Your task to perform on an android device: install app "TextNow: Call + Text Unlimited" Image 0: 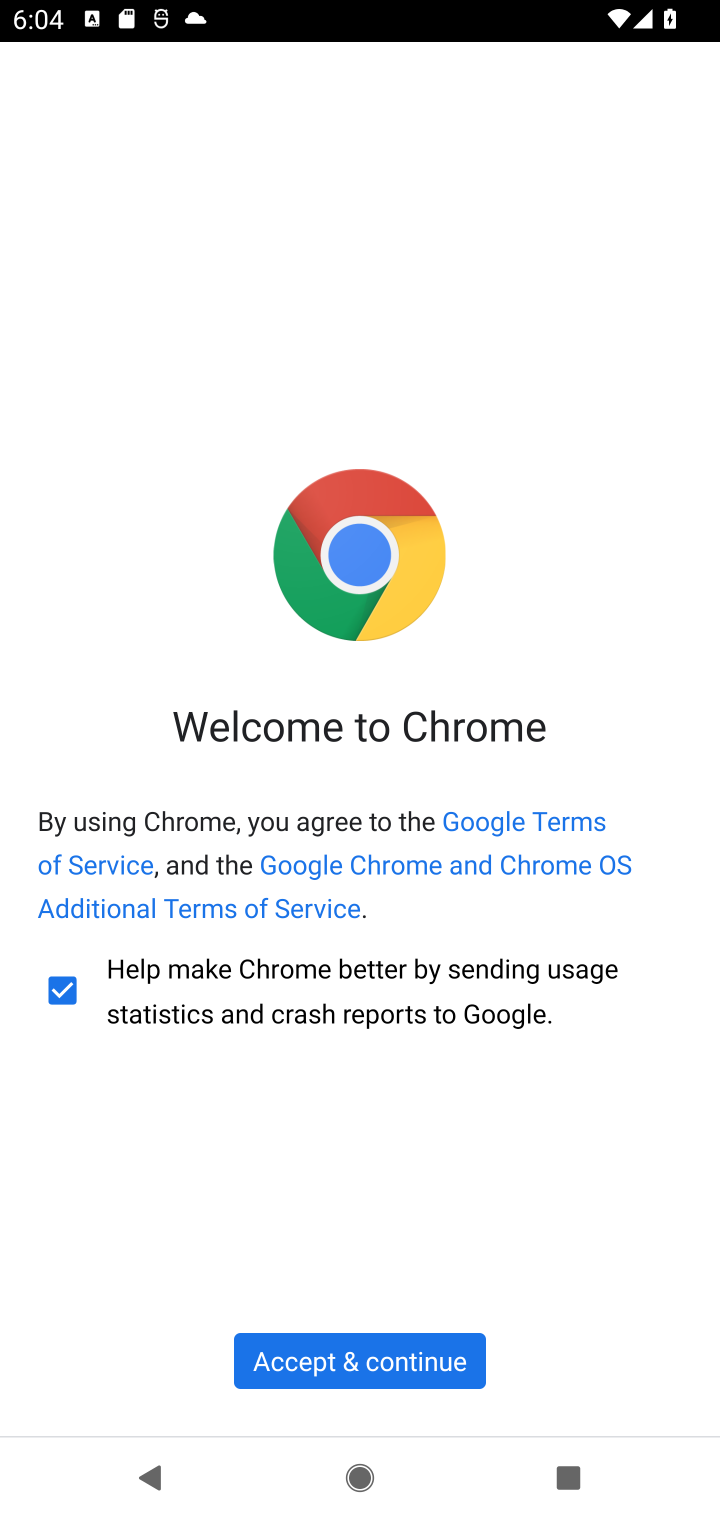
Step 0: press home button
Your task to perform on an android device: install app "TextNow: Call + Text Unlimited" Image 1: 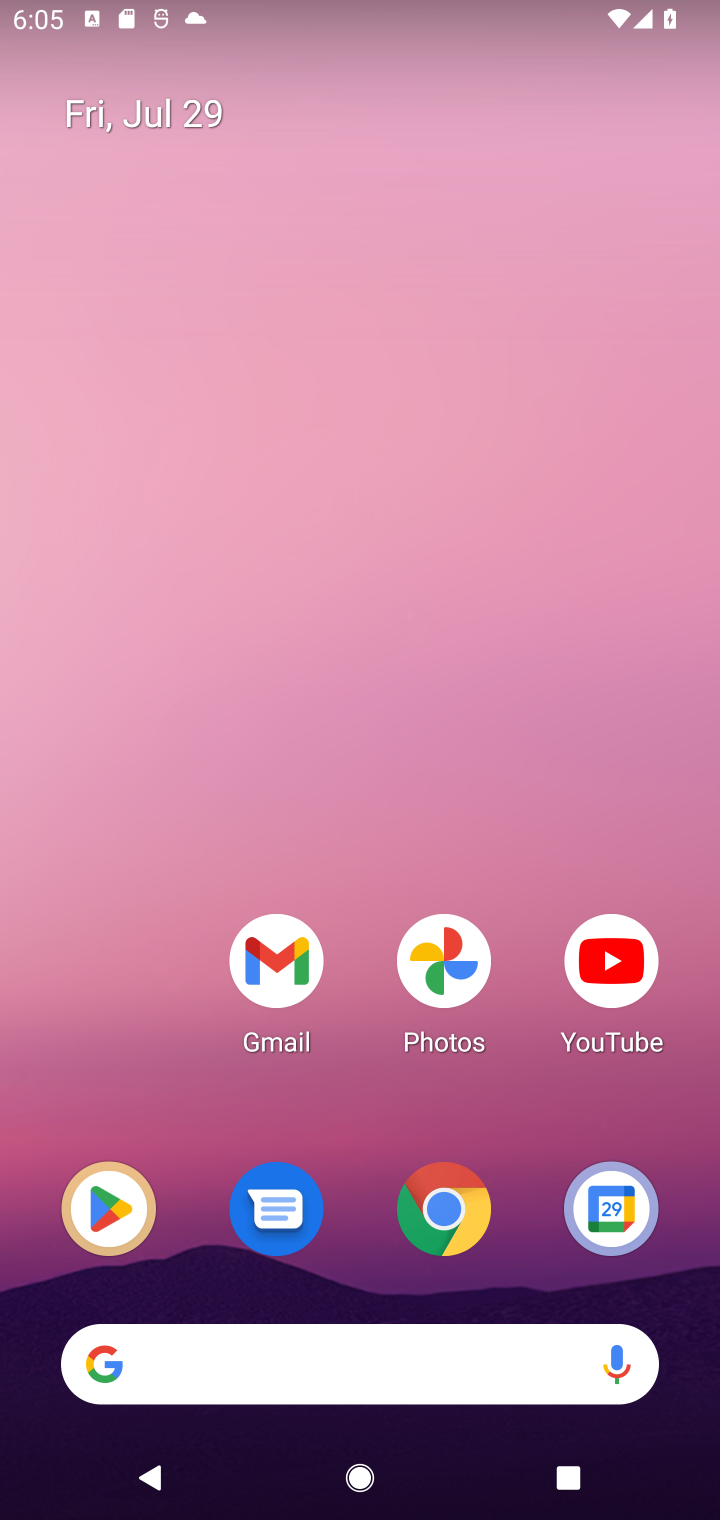
Step 1: click (118, 1225)
Your task to perform on an android device: install app "TextNow: Call + Text Unlimited" Image 2: 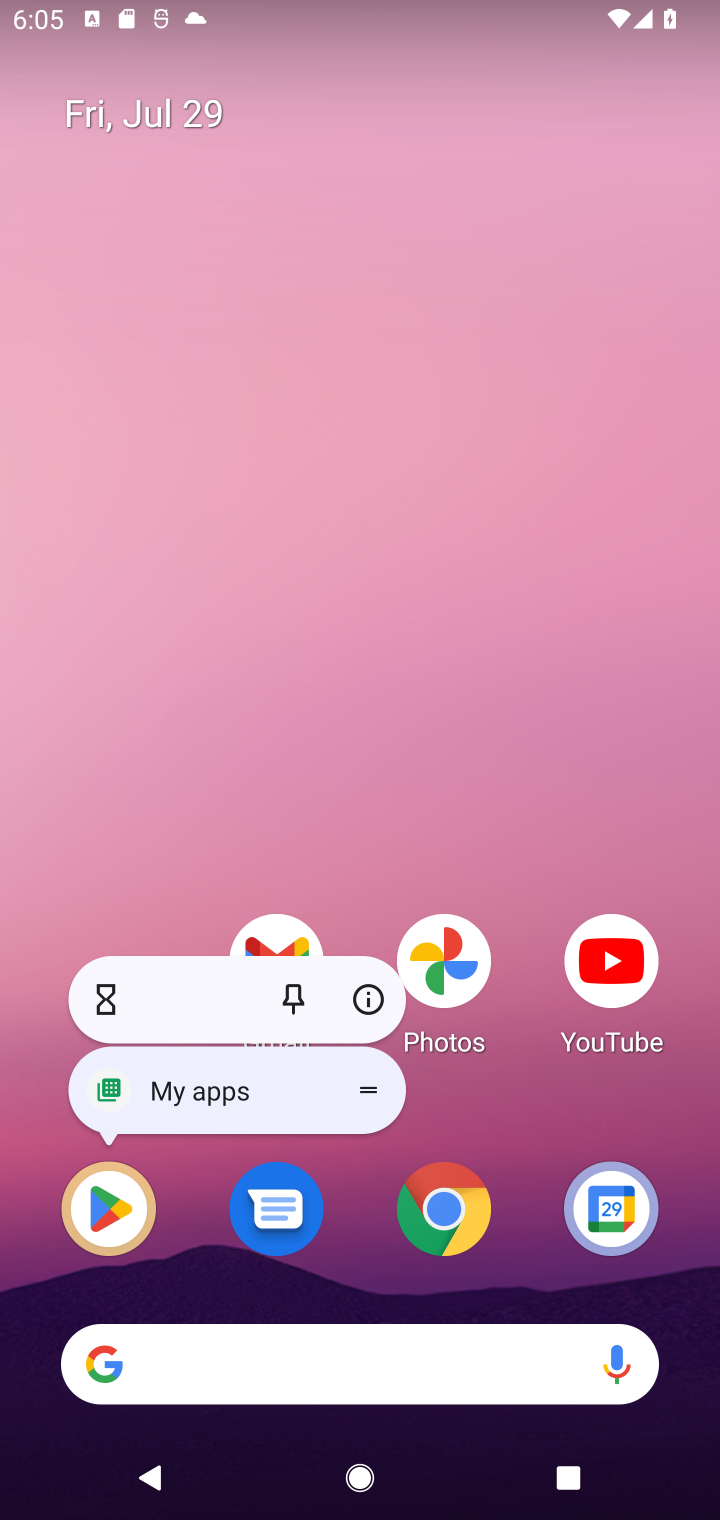
Step 2: click (122, 1216)
Your task to perform on an android device: install app "TextNow: Call + Text Unlimited" Image 3: 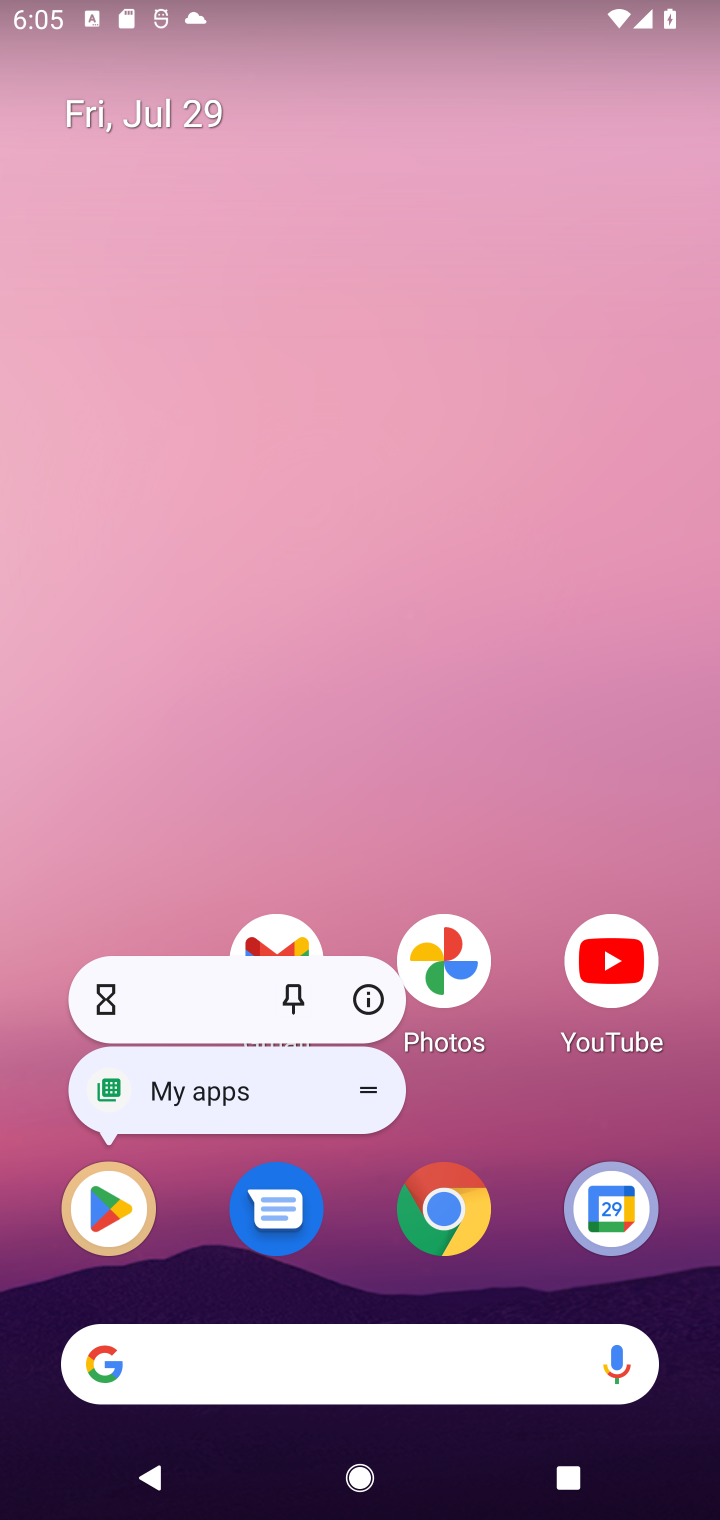
Step 3: click (103, 1209)
Your task to perform on an android device: install app "TextNow: Call + Text Unlimited" Image 4: 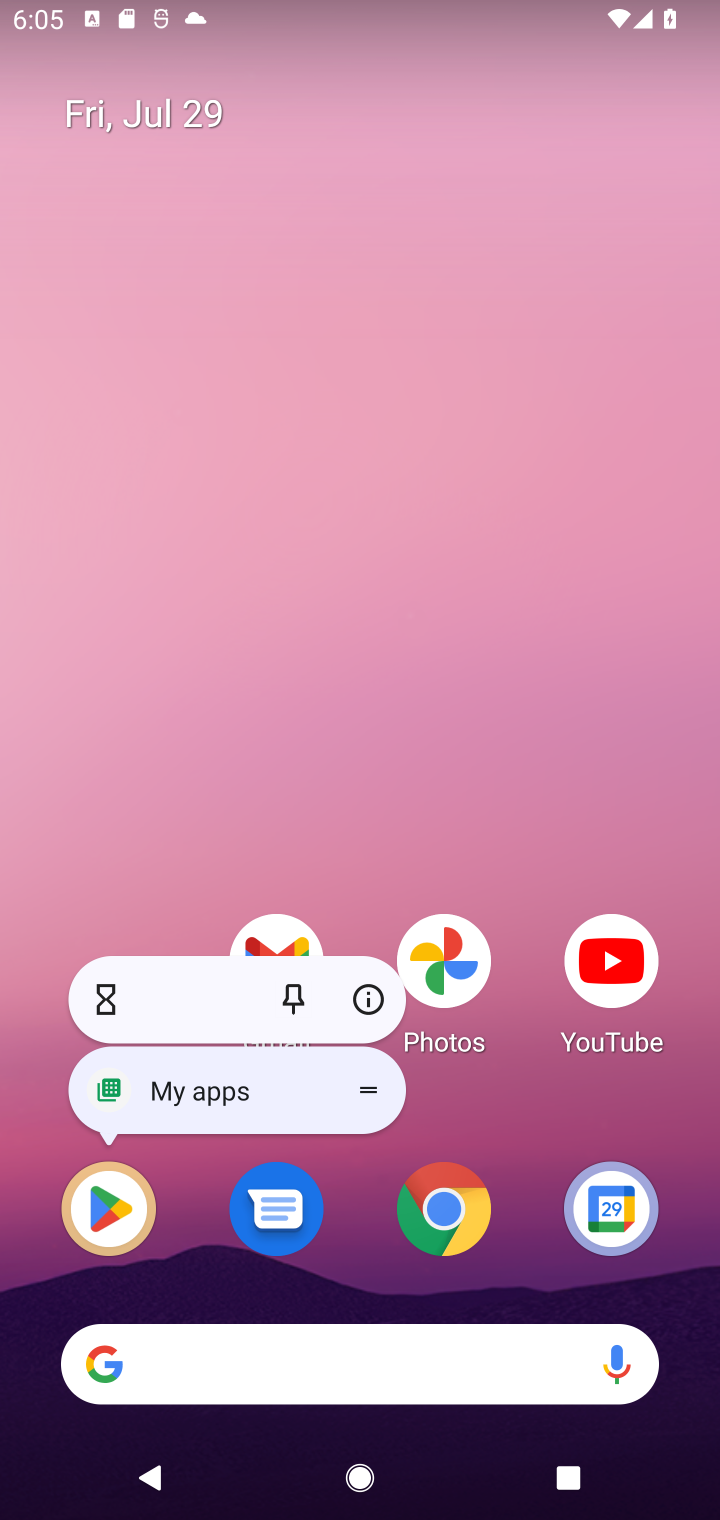
Step 4: click (101, 1209)
Your task to perform on an android device: install app "TextNow: Call + Text Unlimited" Image 5: 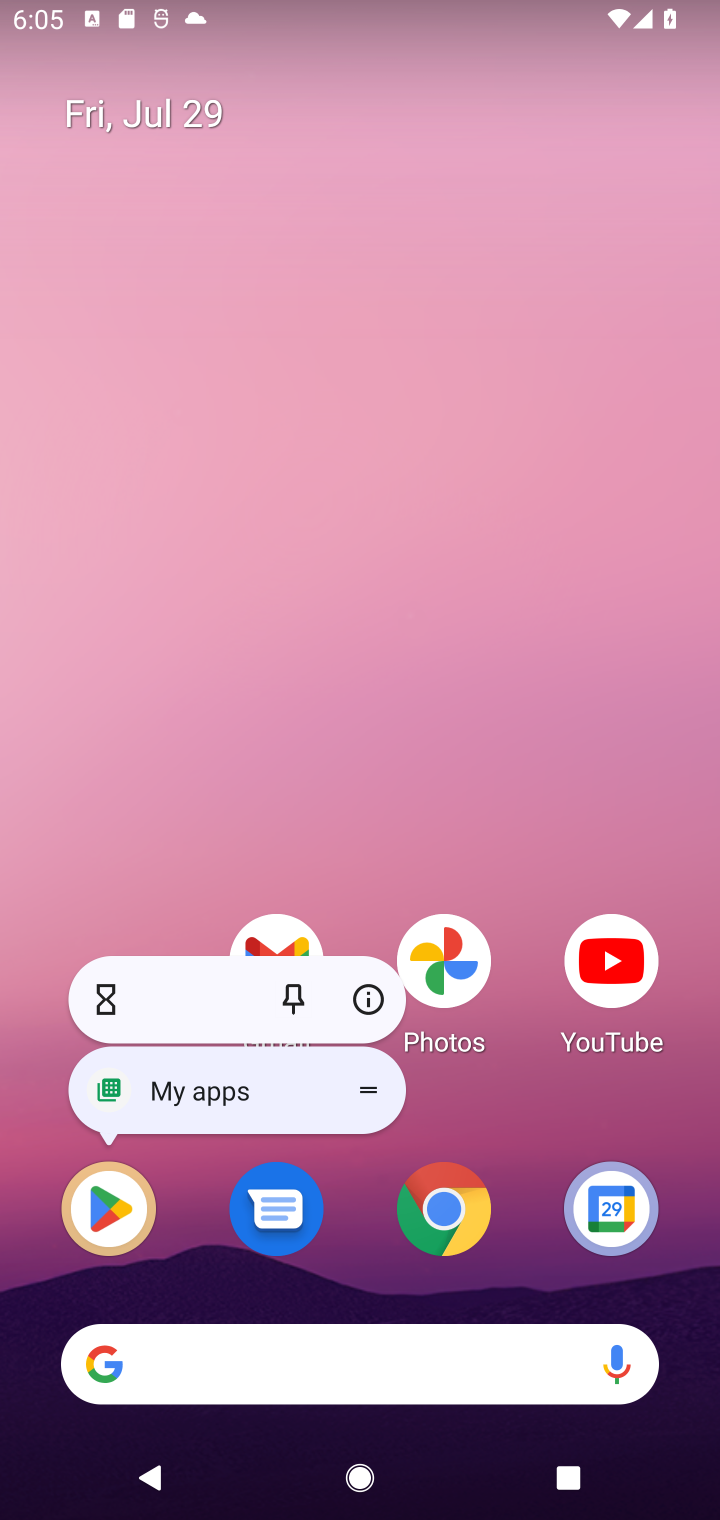
Step 5: click (101, 1209)
Your task to perform on an android device: install app "TextNow: Call + Text Unlimited" Image 6: 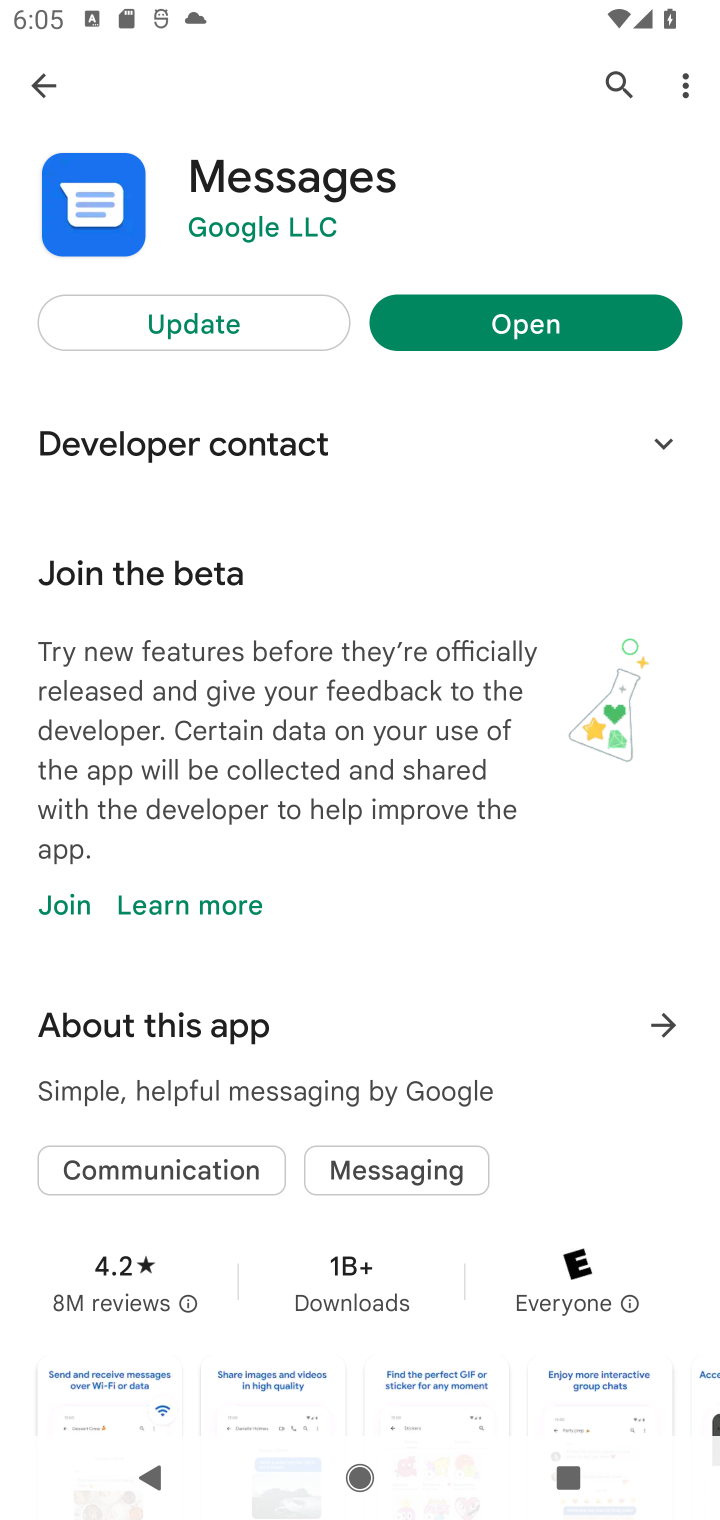
Step 6: click (620, 83)
Your task to perform on an android device: install app "TextNow: Call + Text Unlimited" Image 7: 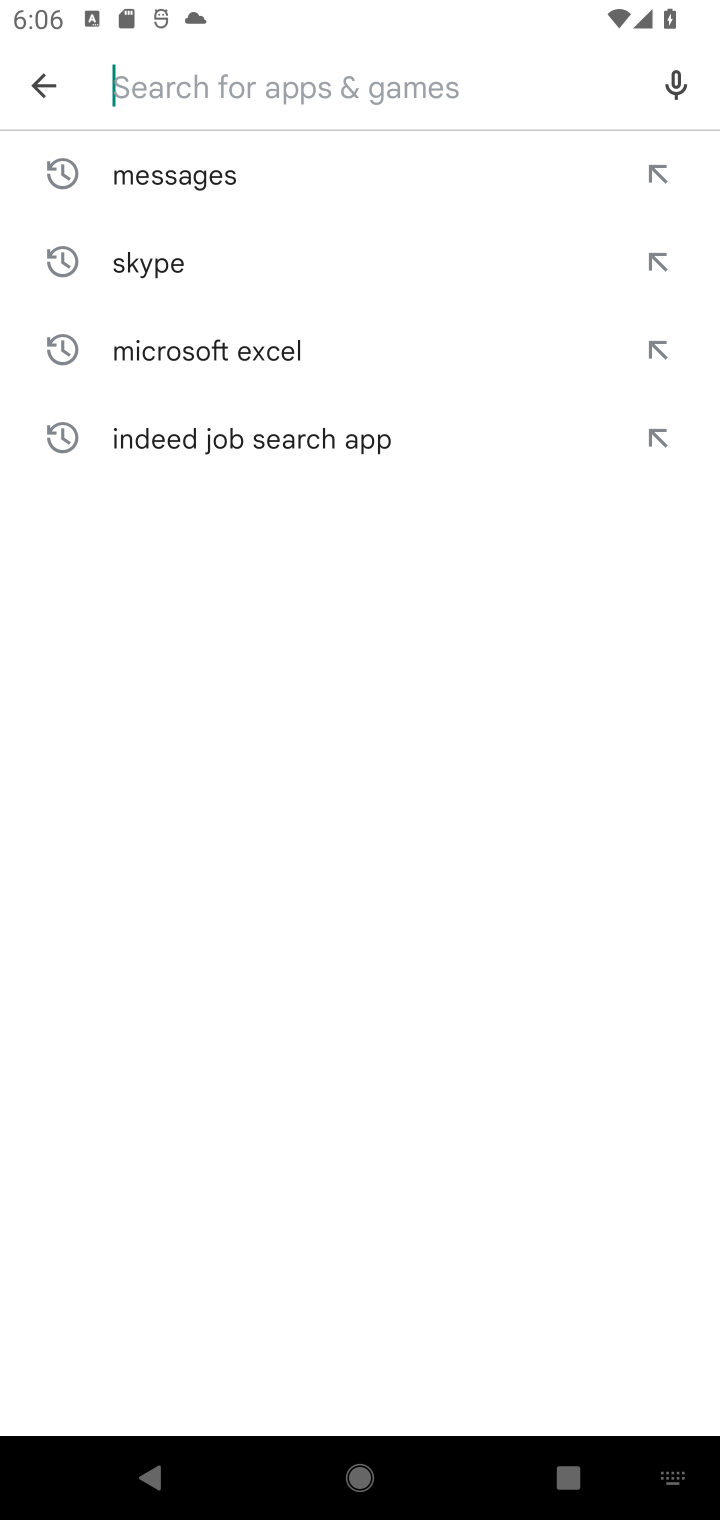
Step 7: click (487, 91)
Your task to perform on an android device: install app "TextNow: Call + Text Unlimited" Image 8: 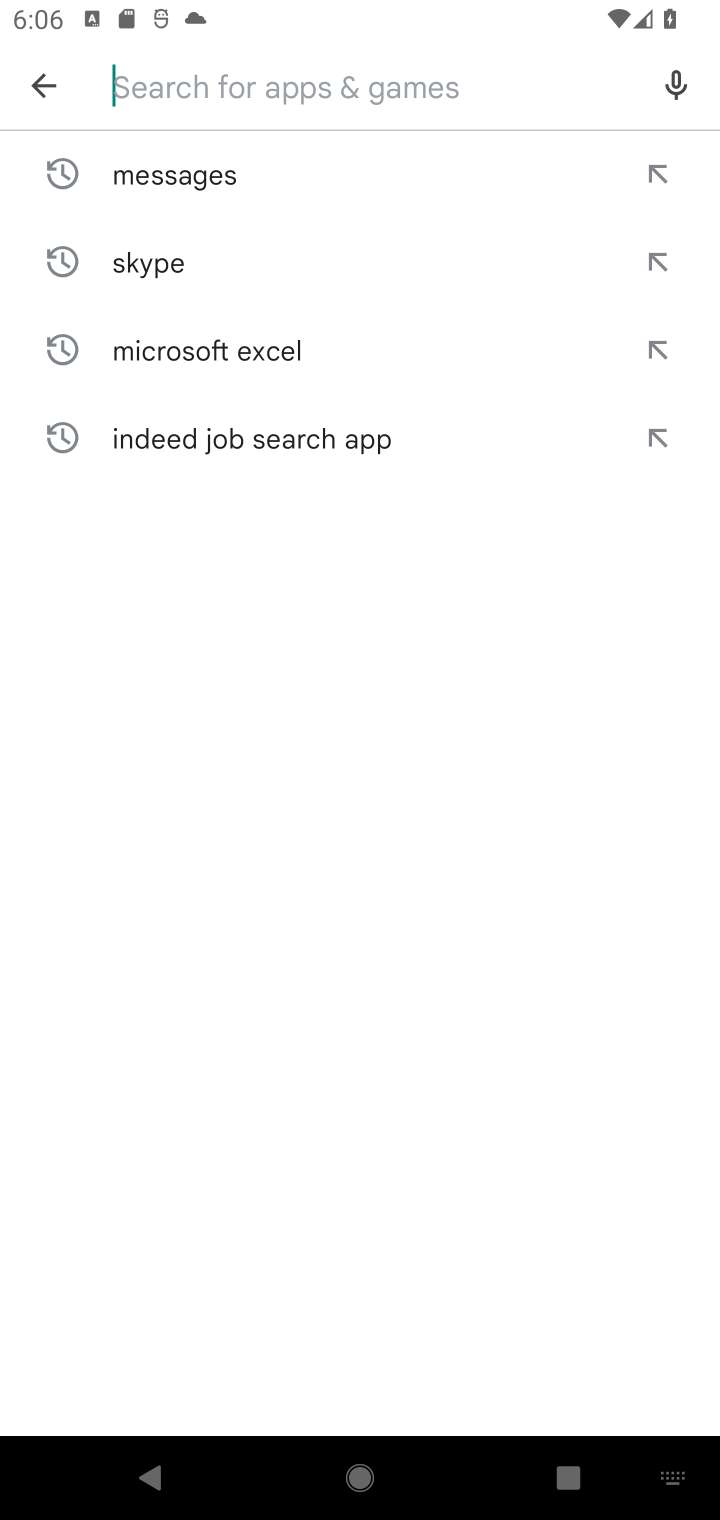
Step 8: type "TextNow: Call + Text Unlimited"
Your task to perform on an android device: install app "TextNow: Call + Text Unlimited" Image 9: 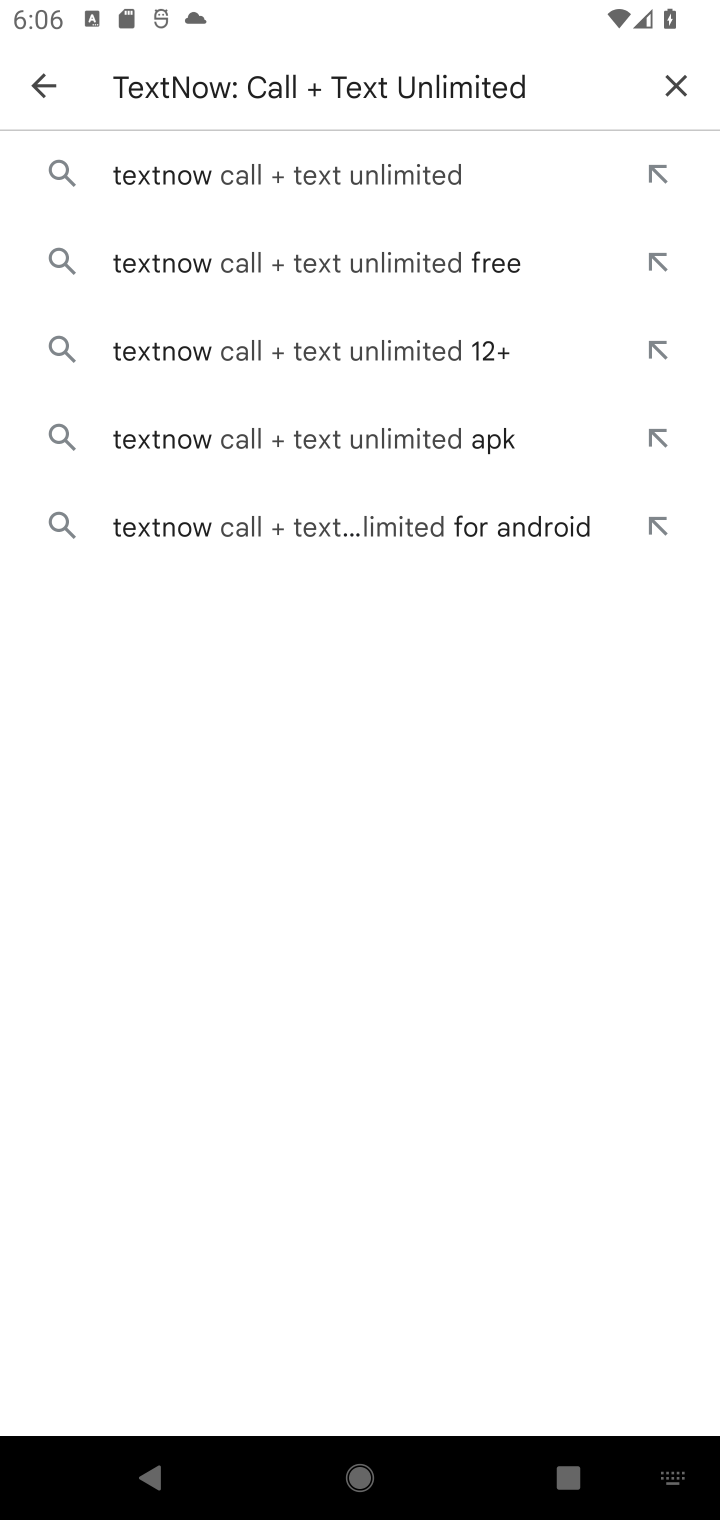
Step 9: click (176, 177)
Your task to perform on an android device: install app "TextNow: Call + Text Unlimited" Image 10: 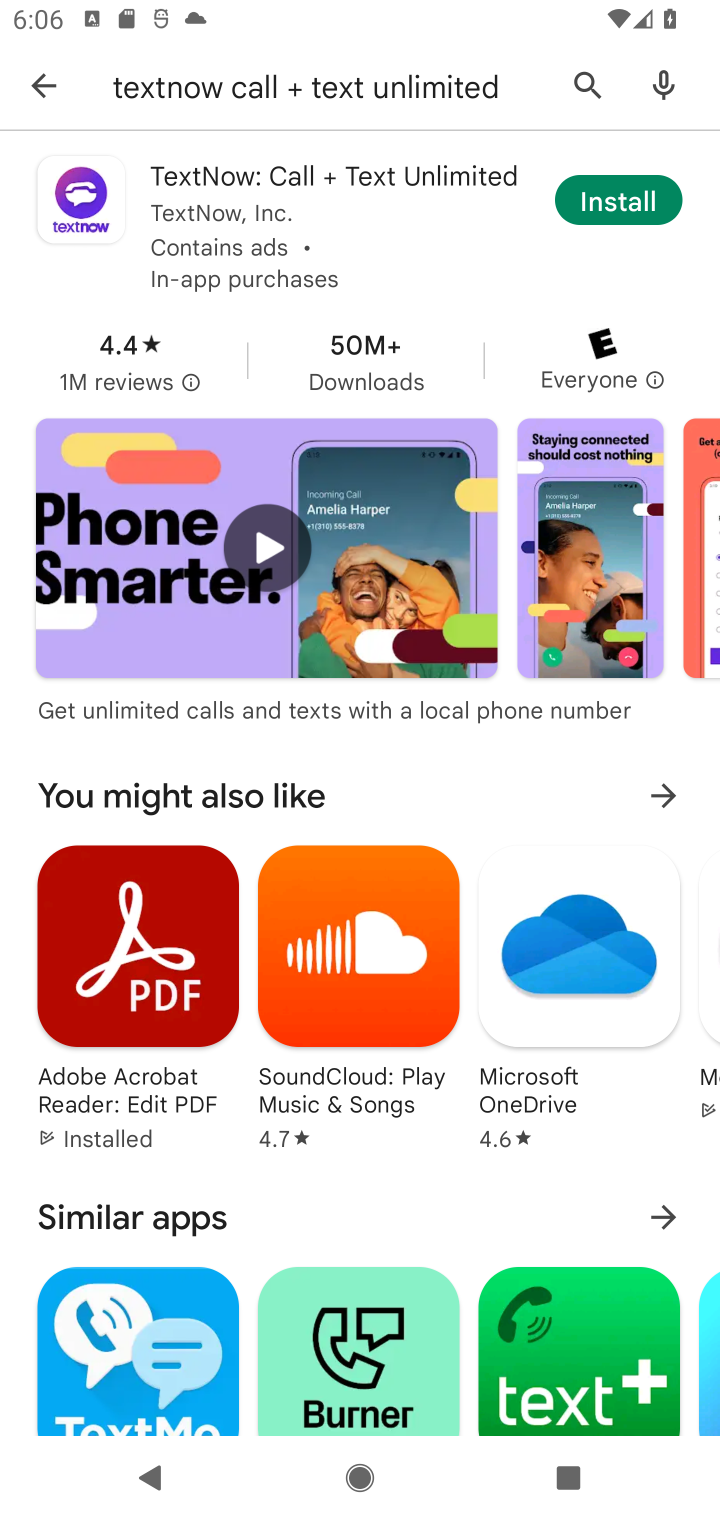
Step 10: click (607, 202)
Your task to perform on an android device: install app "TextNow: Call + Text Unlimited" Image 11: 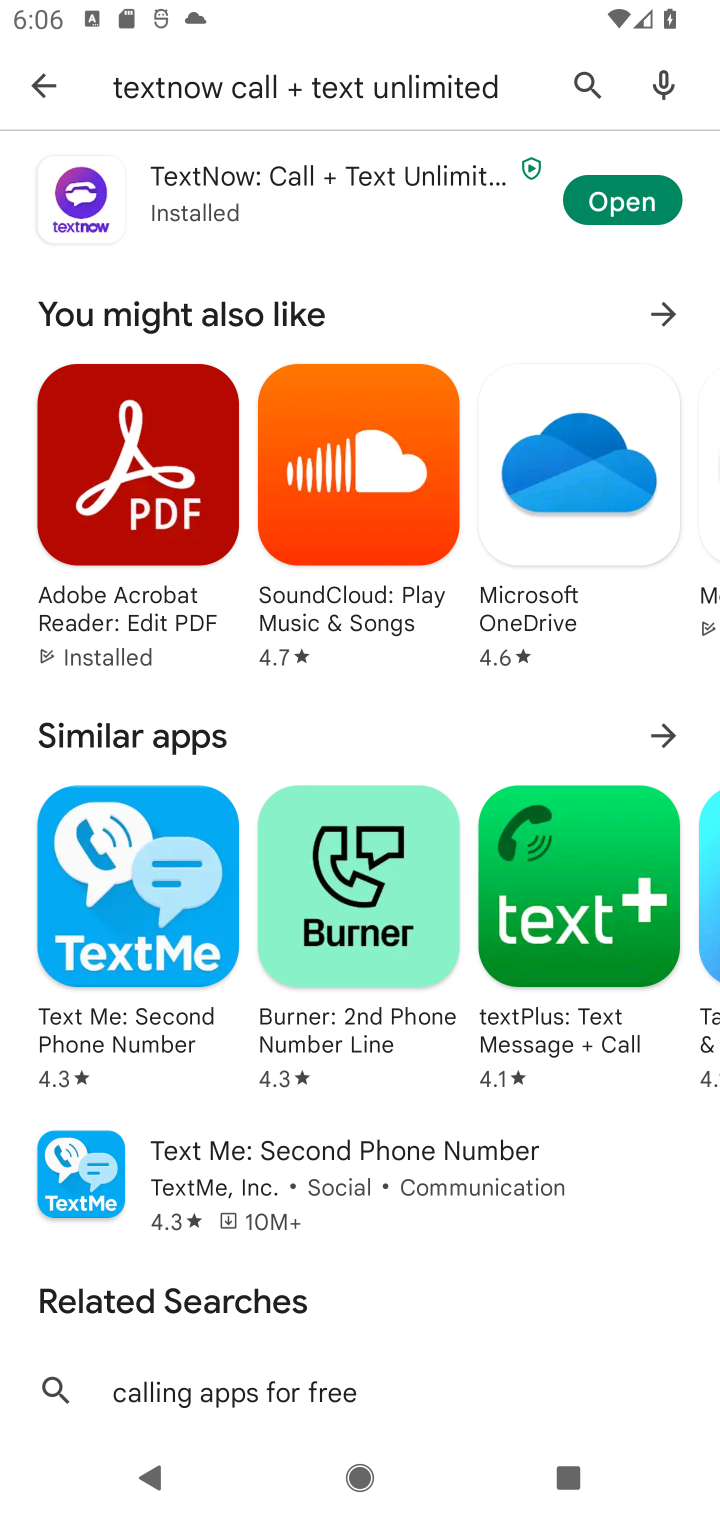
Step 11: task complete